Your task to perform on an android device: open chrome privacy settings Image 0: 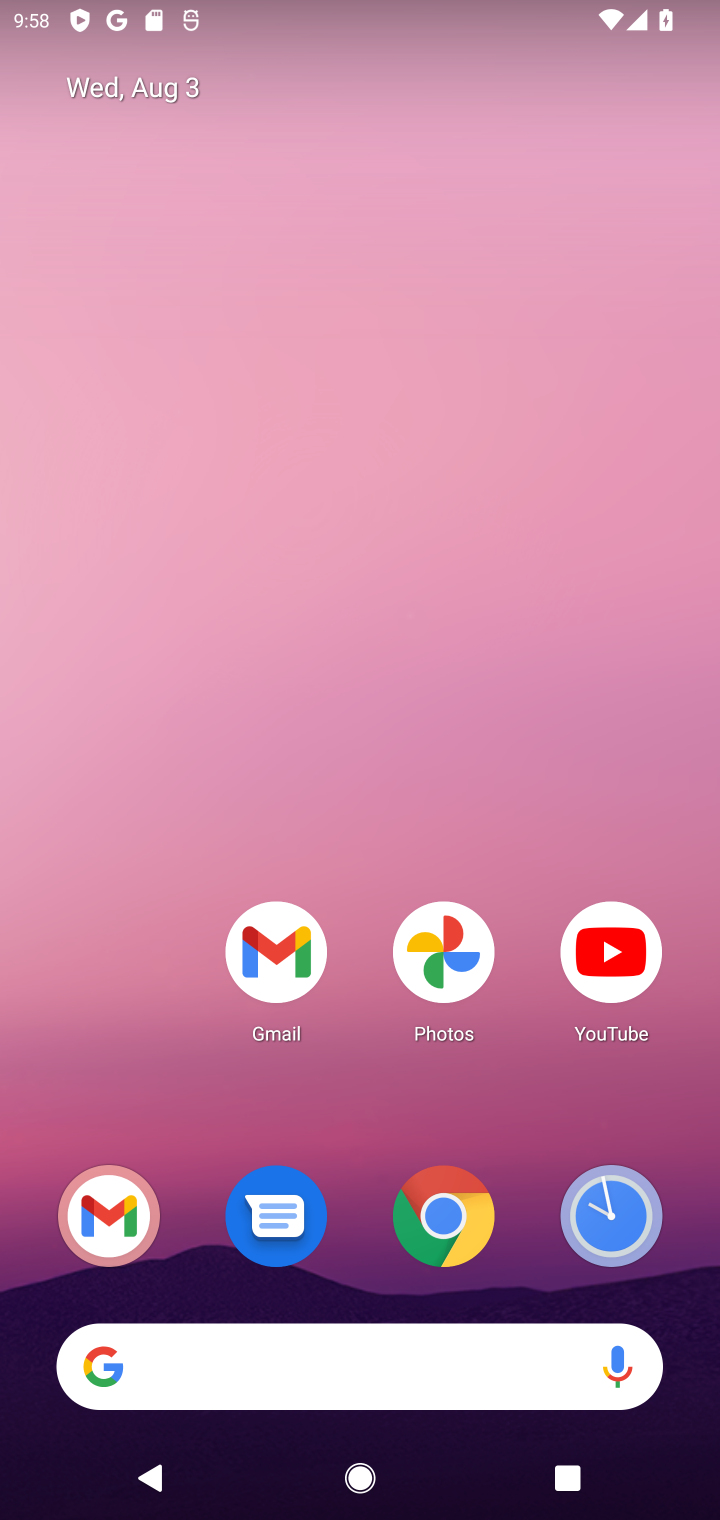
Step 0: press back button
Your task to perform on an android device: open chrome privacy settings Image 1: 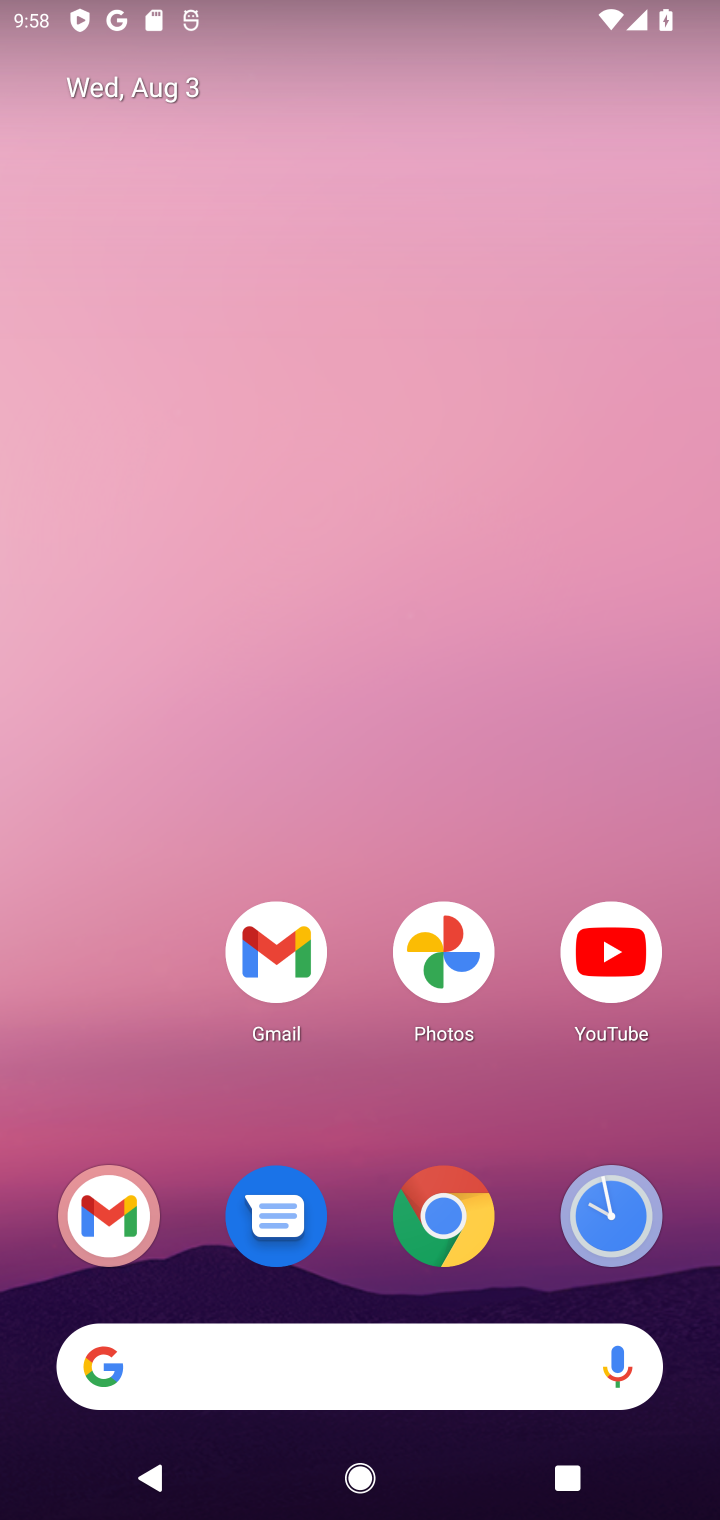
Step 1: click (464, 1234)
Your task to perform on an android device: open chrome privacy settings Image 2: 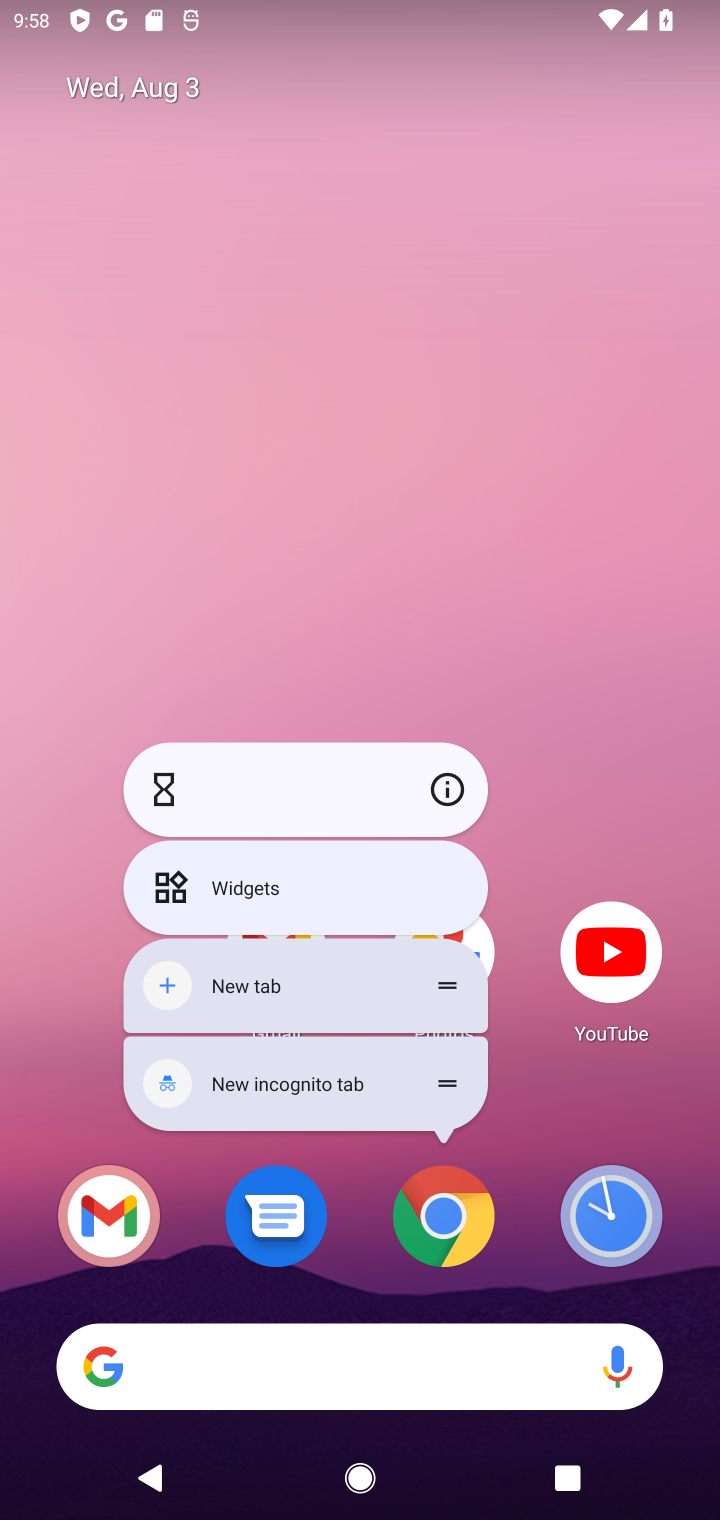
Step 2: click (455, 1209)
Your task to perform on an android device: open chrome privacy settings Image 3: 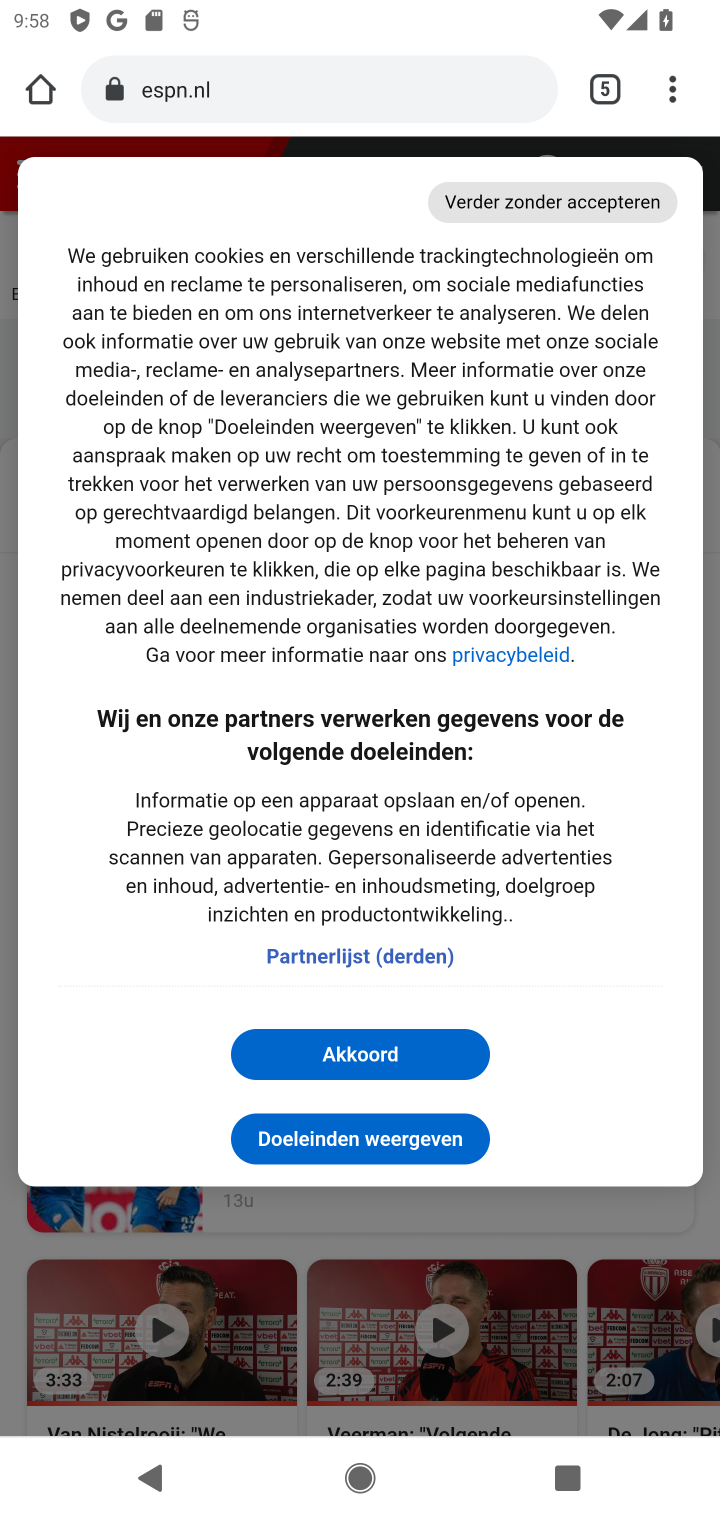
Step 3: drag from (677, 85) to (422, 1115)
Your task to perform on an android device: open chrome privacy settings Image 4: 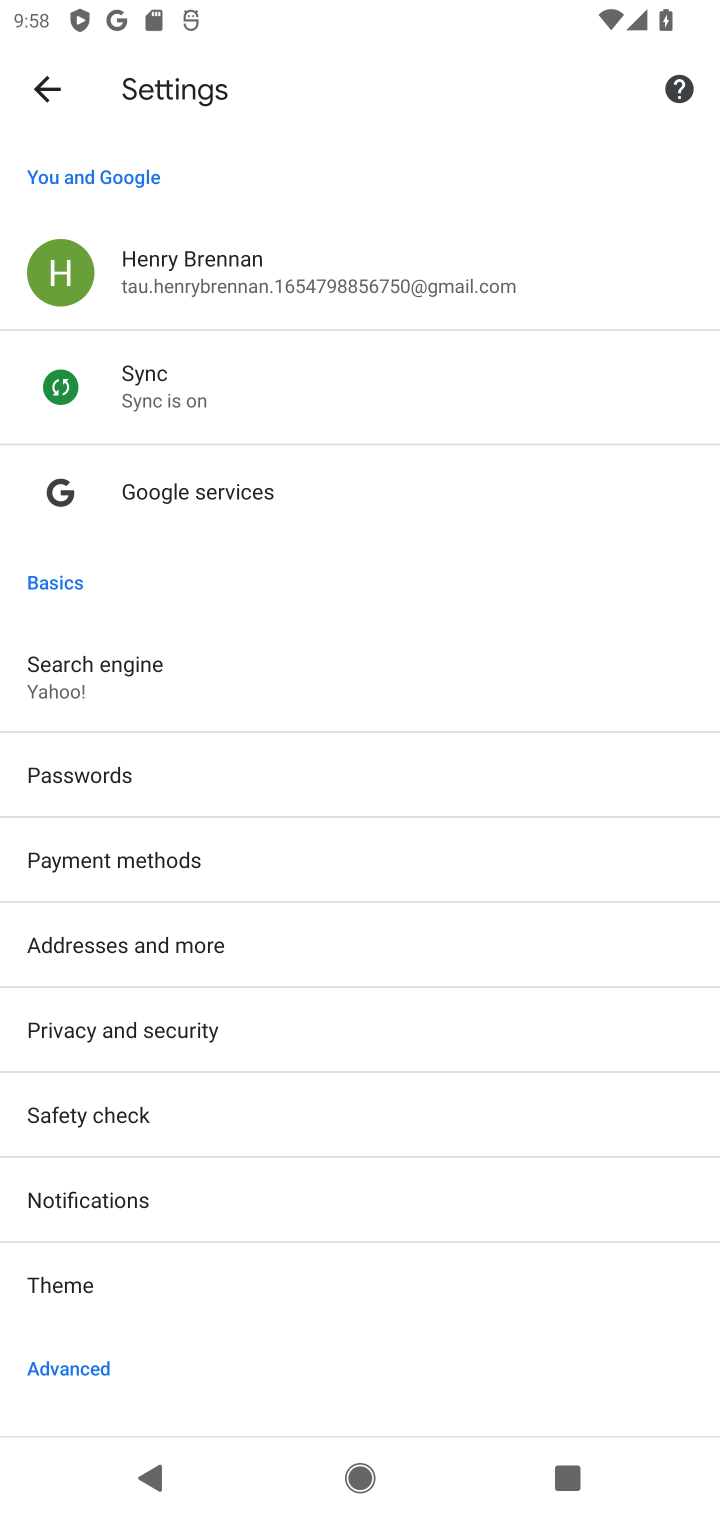
Step 4: drag from (215, 1293) to (462, 37)
Your task to perform on an android device: open chrome privacy settings Image 5: 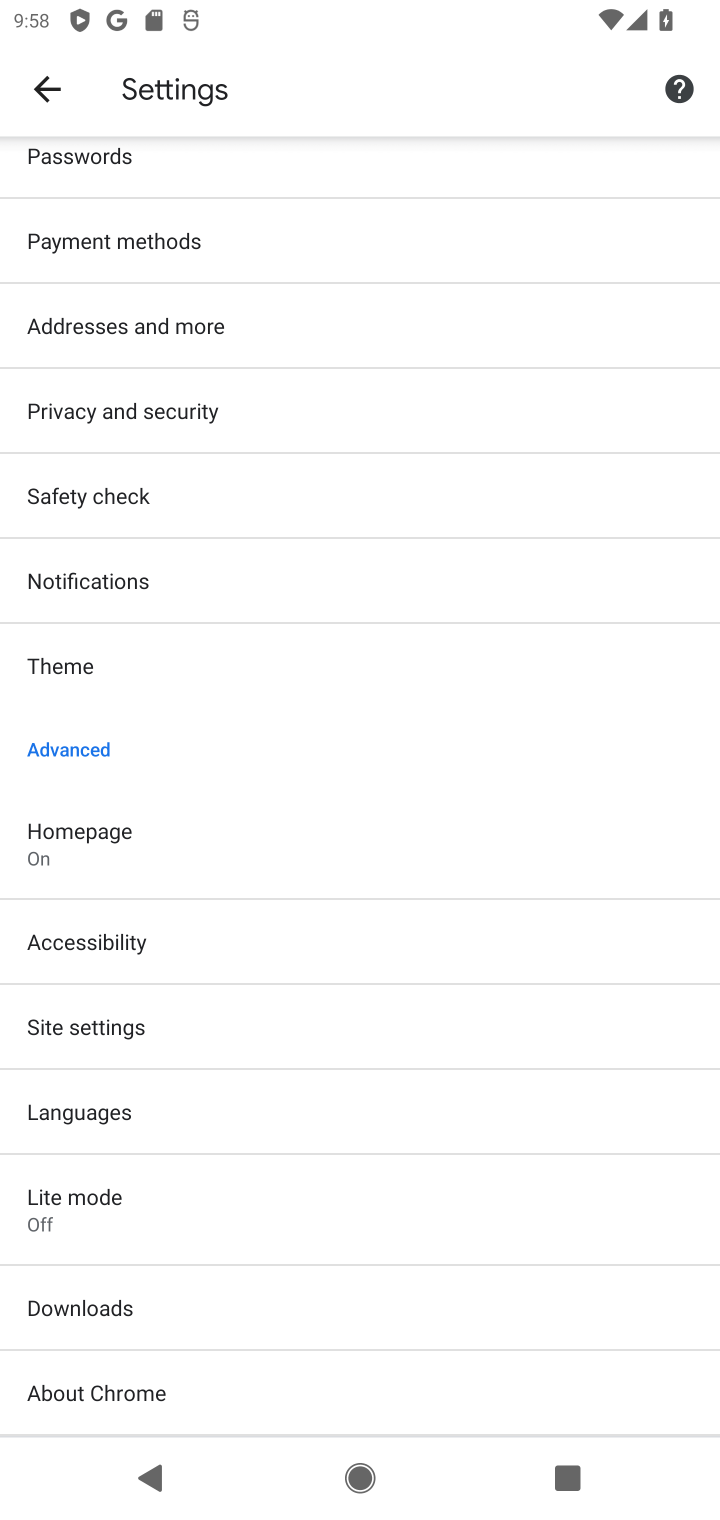
Step 5: click (203, 416)
Your task to perform on an android device: open chrome privacy settings Image 6: 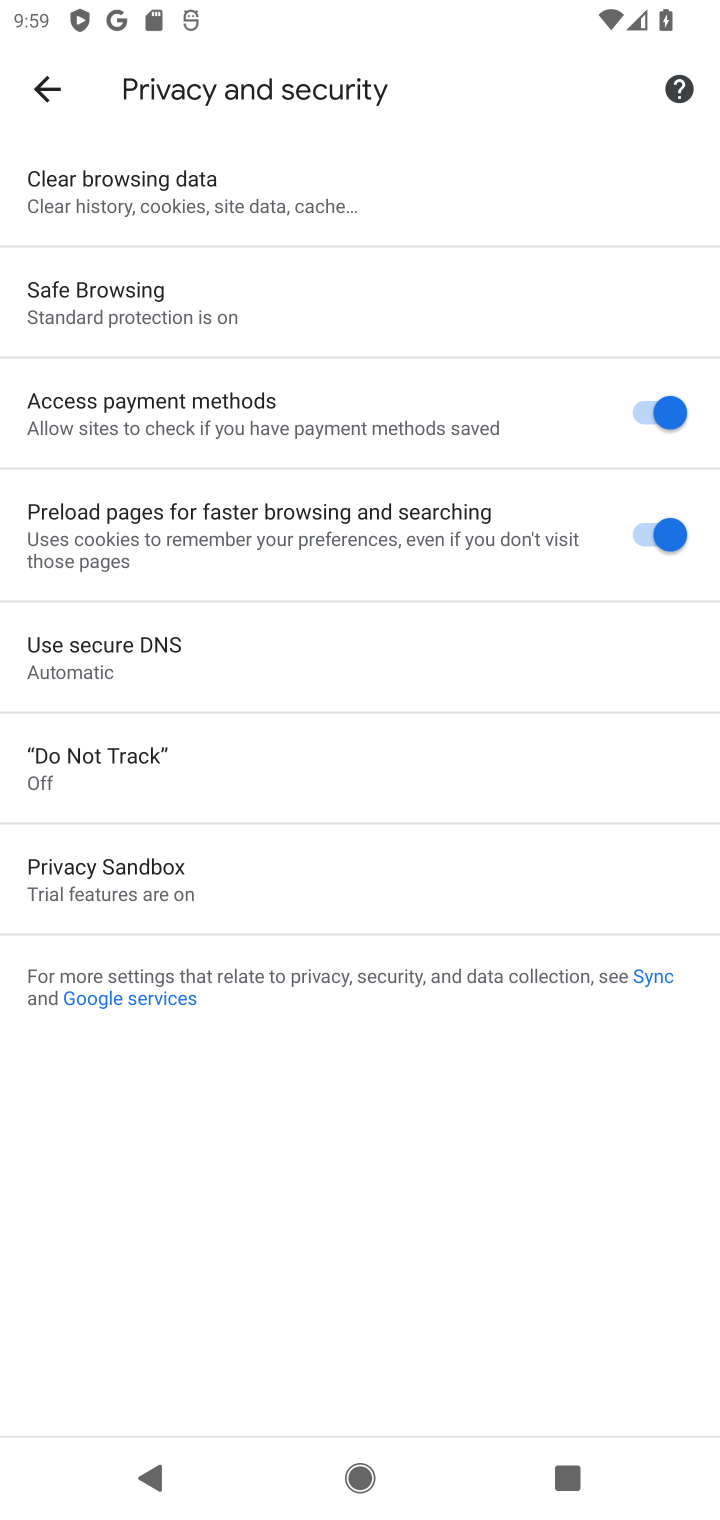
Step 6: task complete